Your task to perform on an android device: Open Youtube and go to the subscriptions tab Image 0: 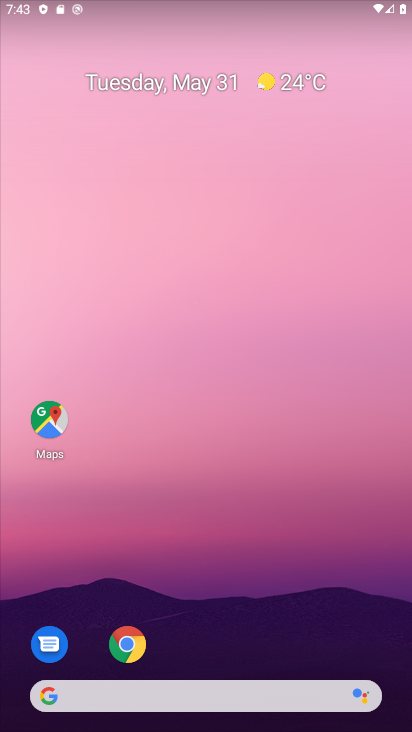
Step 0: drag from (245, 589) to (273, 203)
Your task to perform on an android device: Open Youtube and go to the subscriptions tab Image 1: 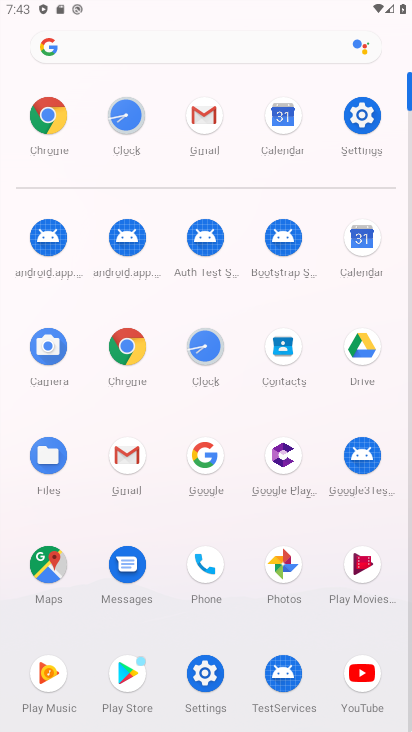
Step 1: click (359, 668)
Your task to perform on an android device: Open Youtube and go to the subscriptions tab Image 2: 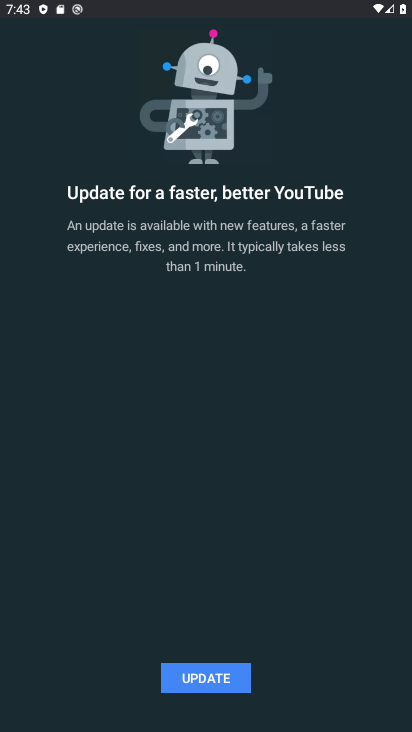
Step 2: click (181, 683)
Your task to perform on an android device: Open Youtube and go to the subscriptions tab Image 3: 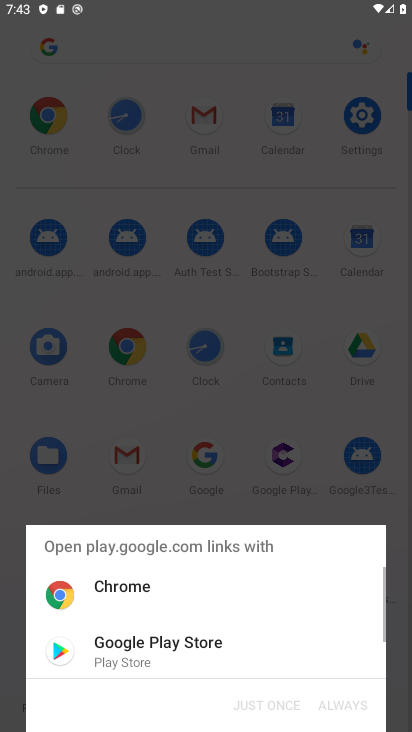
Step 3: click (189, 644)
Your task to perform on an android device: Open Youtube and go to the subscriptions tab Image 4: 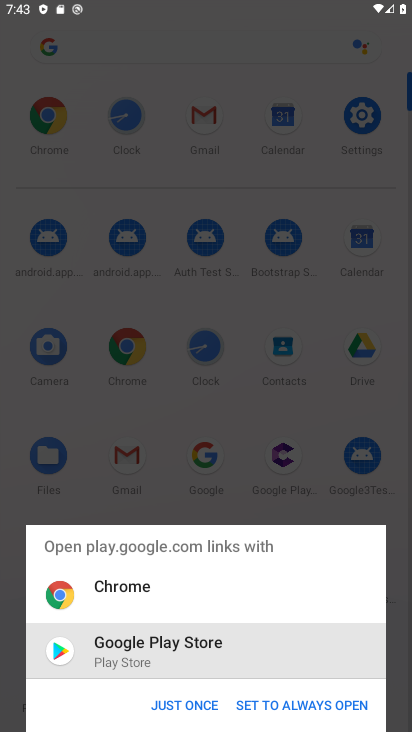
Step 4: click (202, 712)
Your task to perform on an android device: Open Youtube and go to the subscriptions tab Image 5: 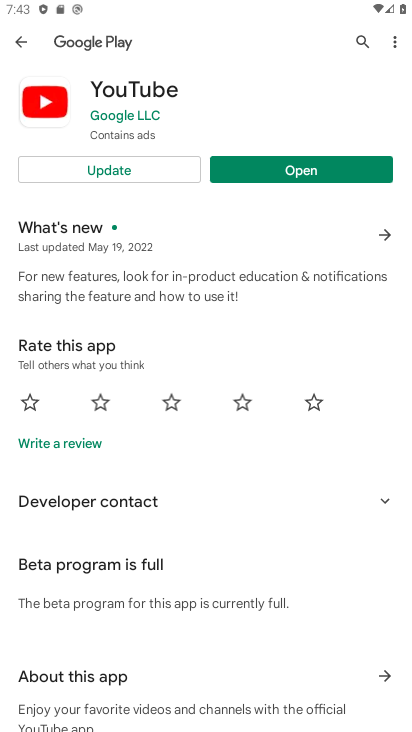
Step 5: click (151, 168)
Your task to perform on an android device: Open Youtube and go to the subscriptions tab Image 6: 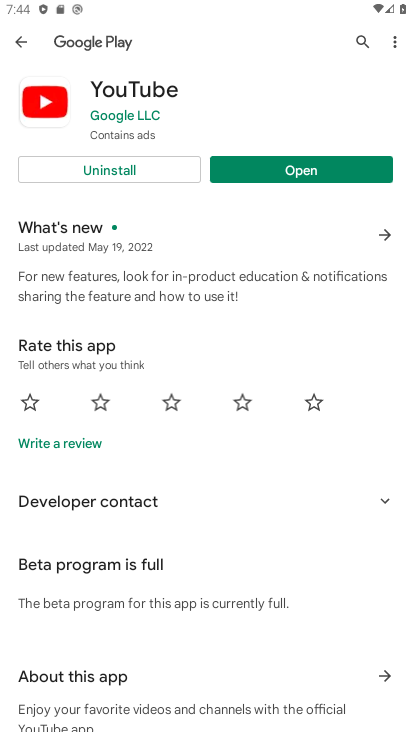
Step 6: click (269, 171)
Your task to perform on an android device: Open Youtube and go to the subscriptions tab Image 7: 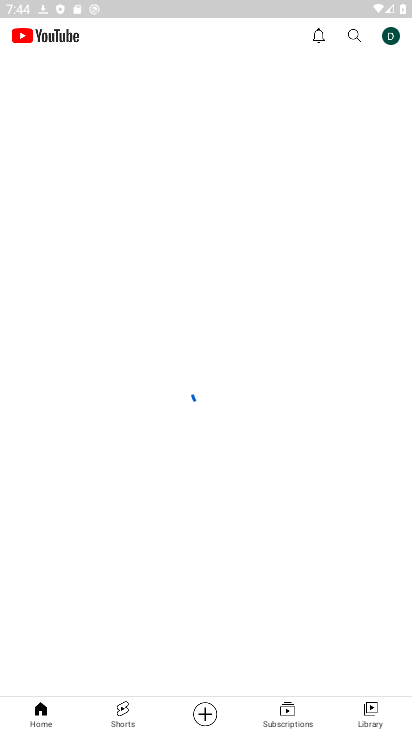
Step 7: click (284, 714)
Your task to perform on an android device: Open Youtube and go to the subscriptions tab Image 8: 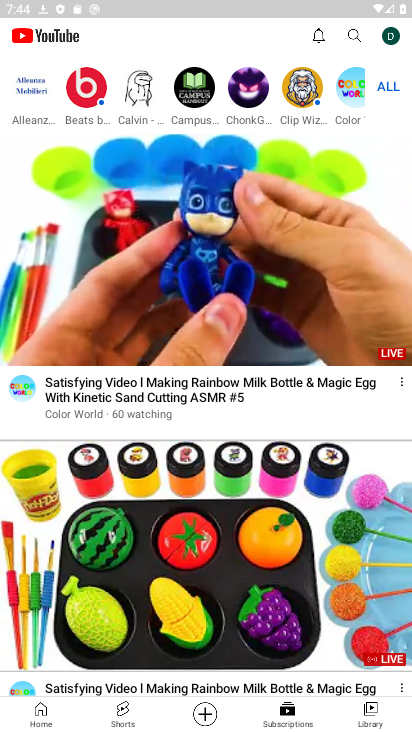
Step 8: task complete